Your task to perform on an android device: delete a single message in the gmail app Image 0: 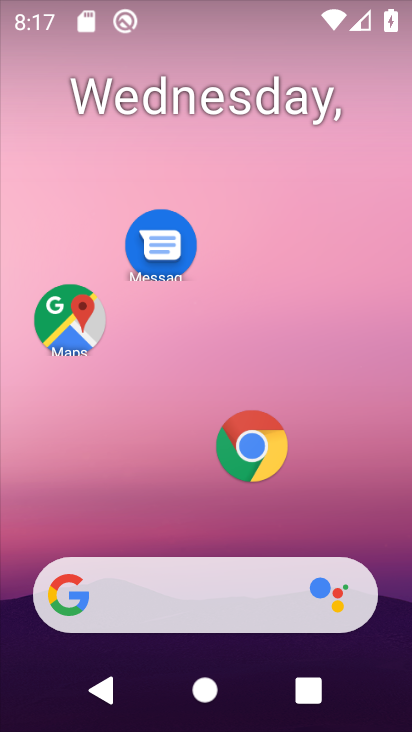
Step 0: drag from (204, 194) to (212, 48)
Your task to perform on an android device: delete a single message in the gmail app Image 1: 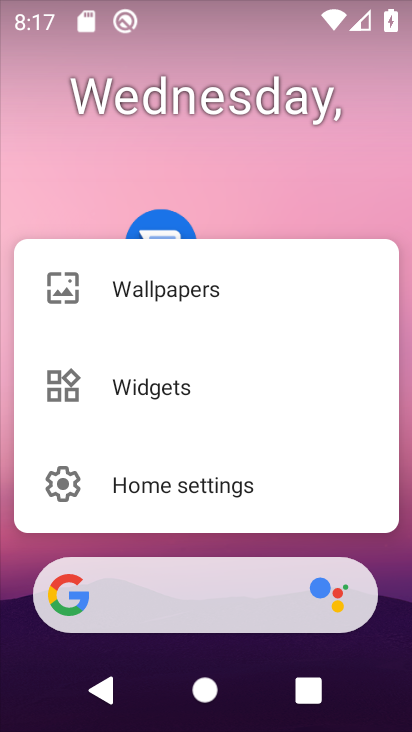
Step 1: click (264, 183)
Your task to perform on an android device: delete a single message in the gmail app Image 2: 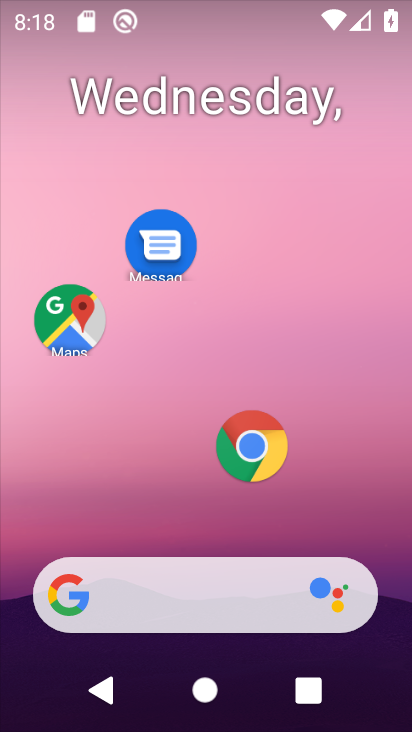
Step 2: drag from (192, 509) to (245, 8)
Your task to perform on an android device: delete a single message in the gmail app Image 3: 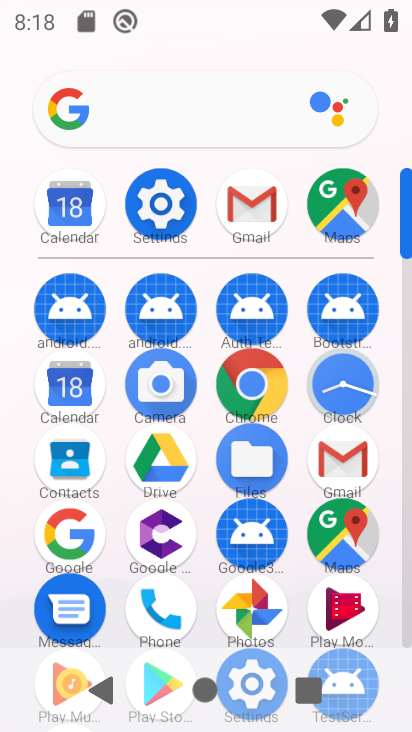
Step 3: click (342, 449)
Your task to perform on an android device: delete a single message in the gmail app Image 4: 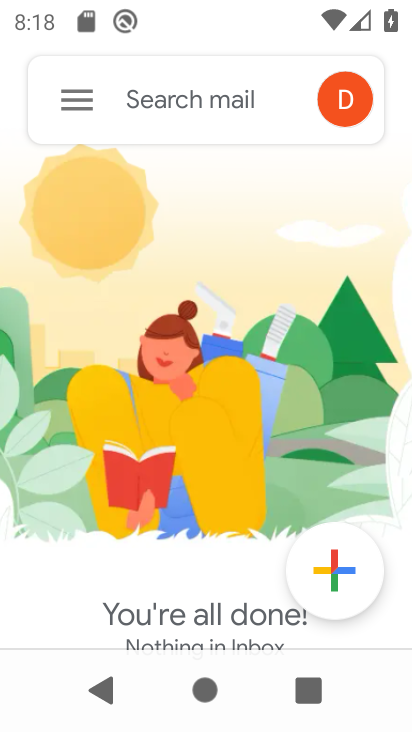
Step 4: click (75, 98)
Your task to perform on an android device: delete a single message in the gmail app Image 5: 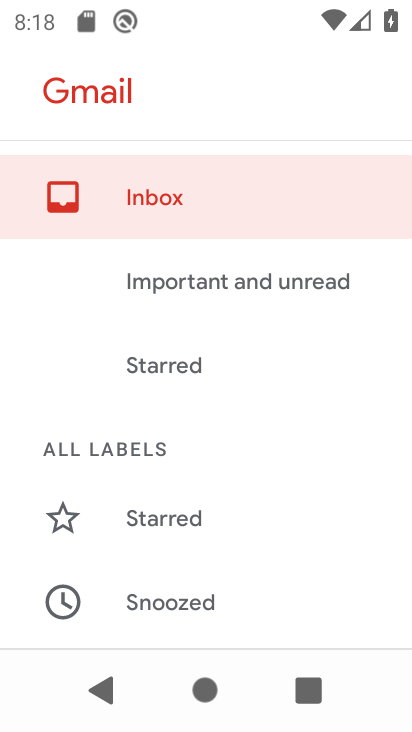
Step 5: drag from (199, 577) to (211, 90)
Your task to perform on an android device: delete a single message in the gmail app Image 6: 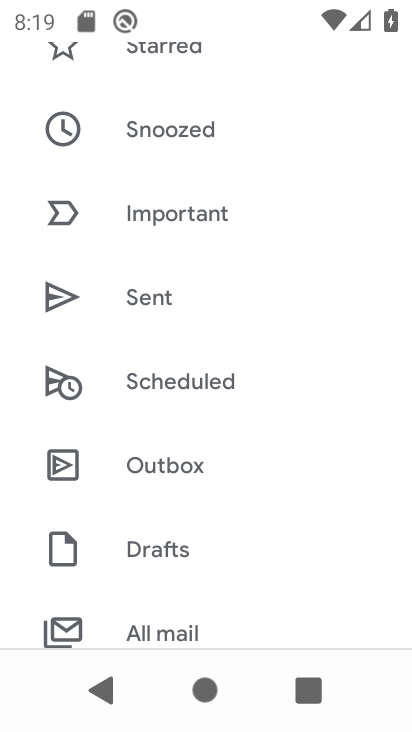
Step 6: click (153, 613)
Your task to perform on an android device: delete a single message in the gmail app Image 7: 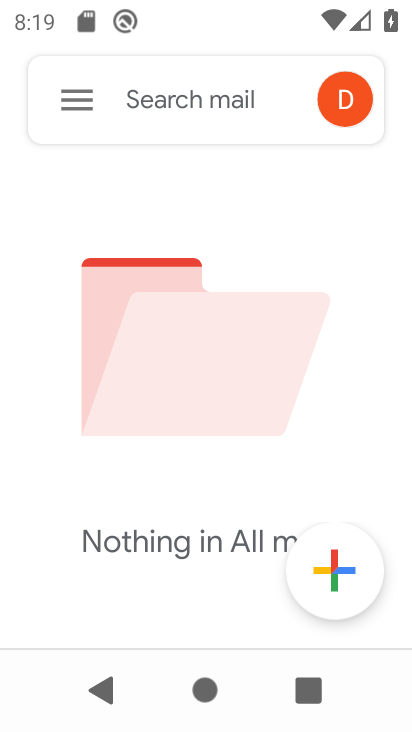
Step 7: task complete